Your task to perform on an android device: Go to Yahoo.com Image 0: 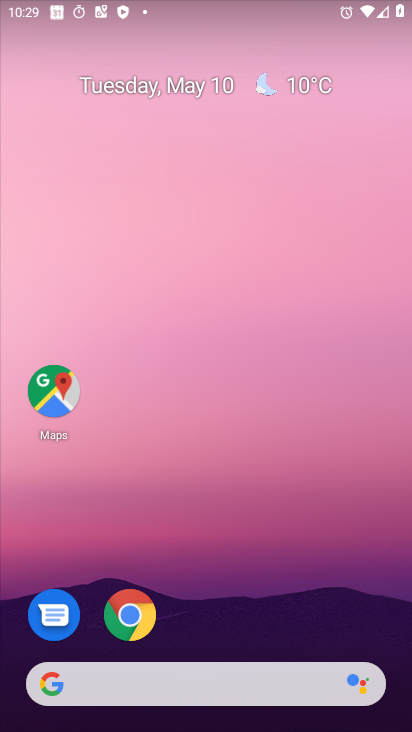
Step 0: click (126, 609)
Your task to perform on an android device: Go to Yahoo.com Image 1: 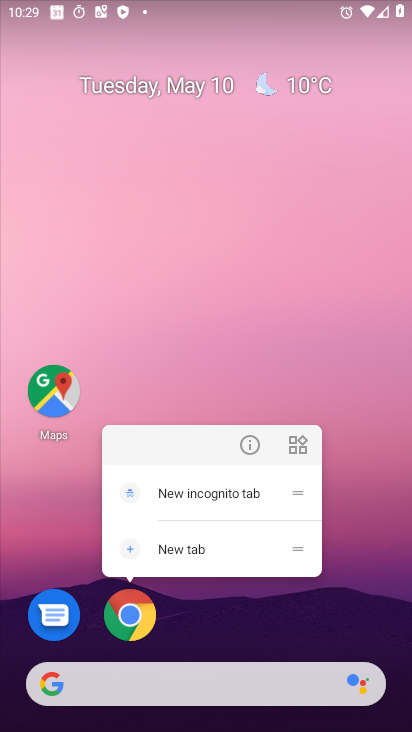
Step 1: click (129, 615)
Your task to perform on an android device: Go to Yahoo.com Image 2: 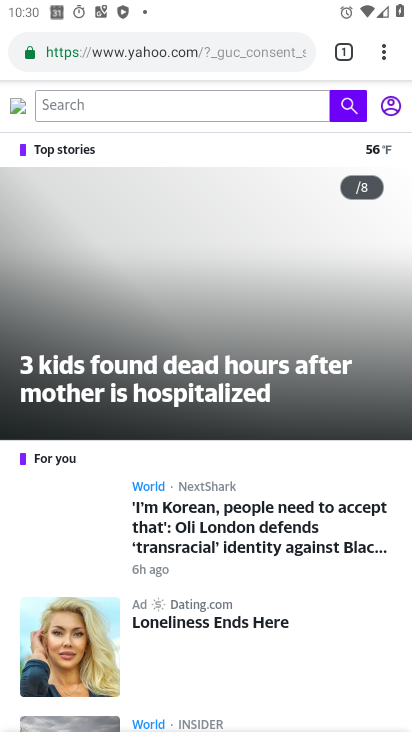
Step 2: task complete